Your task to perform on an android device: toggle wifi Image 0: 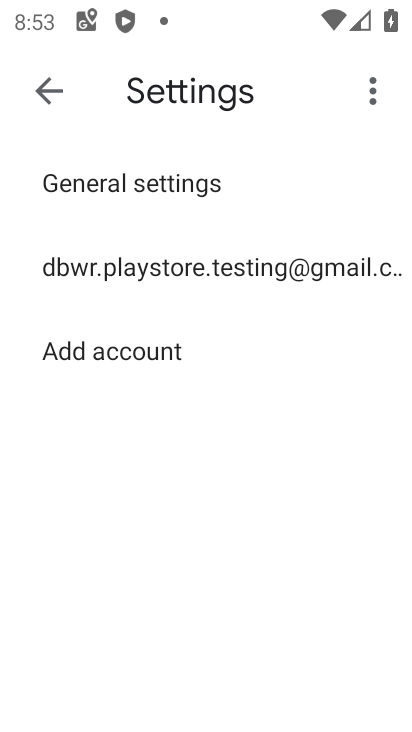
Step 0: press home button
Your task to perform on an android device: toggle wifi Image 1: 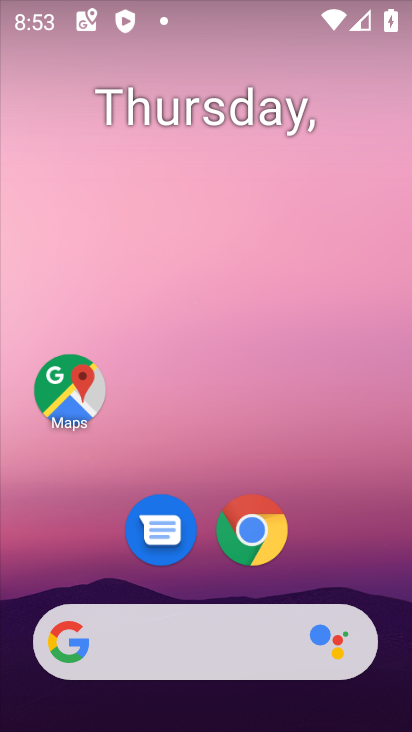
Step 1: drag from (318, 614) to (350, 273)
Your task to perform on an android device: toggle wifi Image 2: 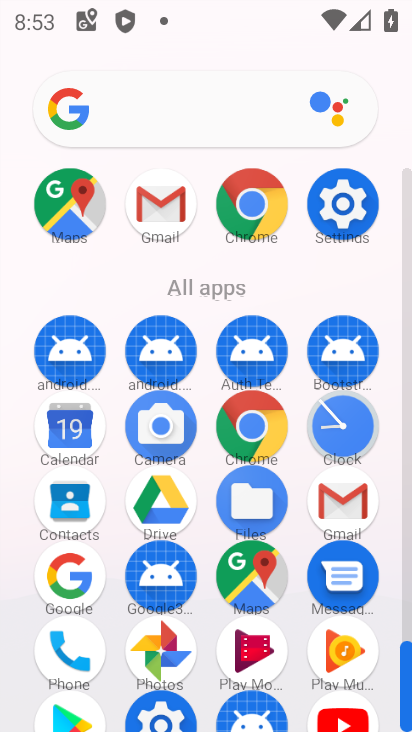
Step 2: click (354, 226)
Your task to perform on an android device: toggle wifi Image 3: 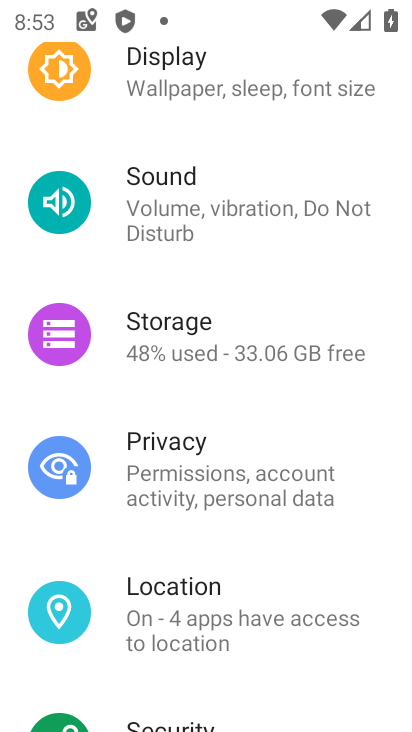
Step 3: drag from (291, 153) to (266, 395)
Your task to perform on an android device: toggle wifi Image 4: 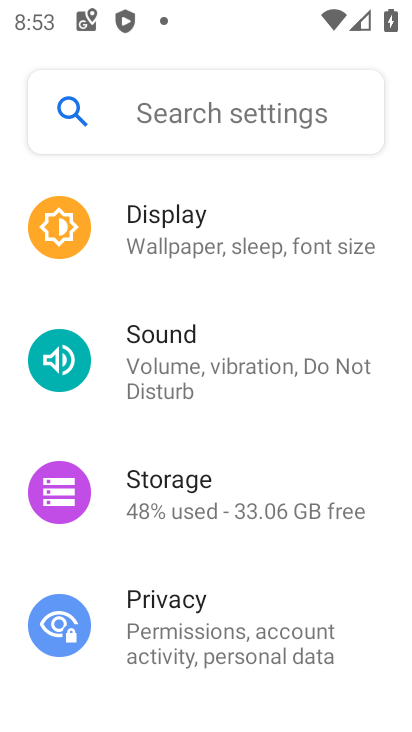
Step 4: drag from (277, 171) to (254, 401)
Your task to perform on an android device: toggle wifi Image 5: 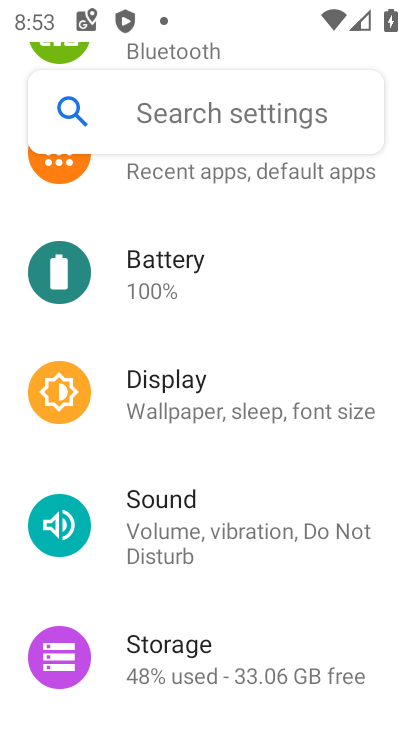
Step 5: drag from (267, 211) to (243, 366)
Your task to perform on an android device: toggle wifi Image 6: 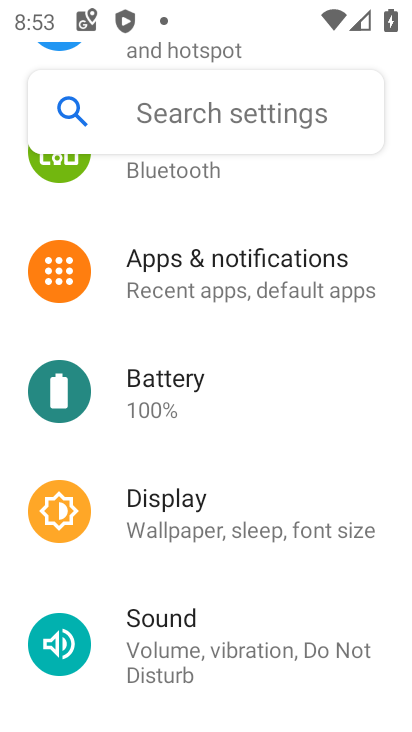
Step 6: drag from (255, 263) to (241, 317)
Your task to perform on an android device: toggle wifi Image 7: 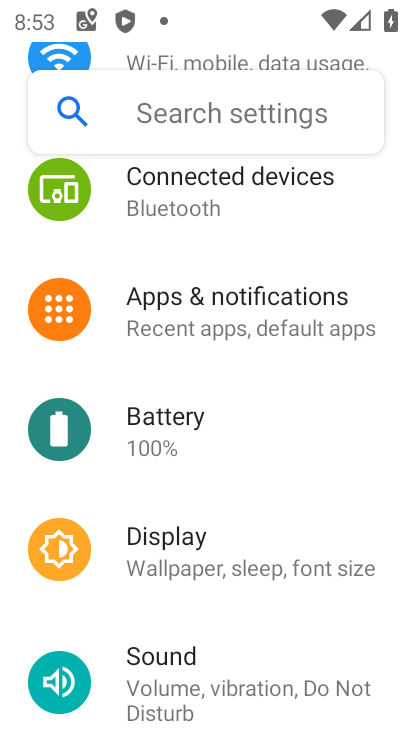
Step 7: drag from (258, 263) to (264, 421)
Your task to perform on an android device: toggle wifi Image 8: 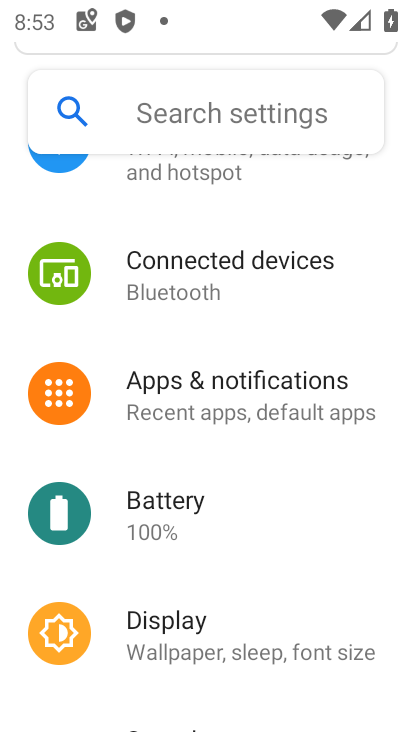
Step 8: drag from (292, 197) to (255, 476)
Your task to perform on an android device: toggle wifi Image 9: 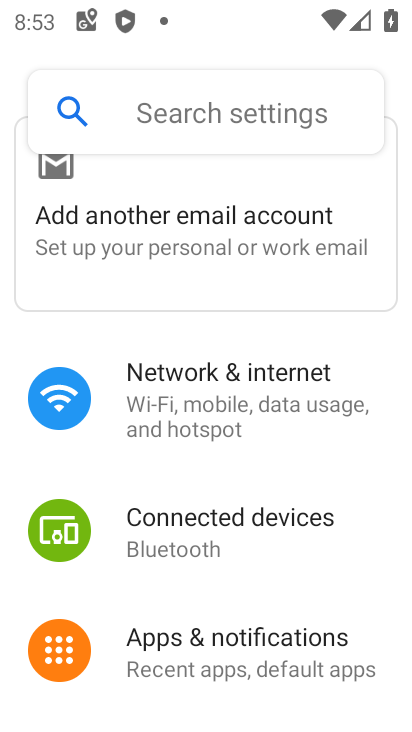
Step 9: click (252, 395)
Your task to perform on an android device: toggle wifi Image 10: 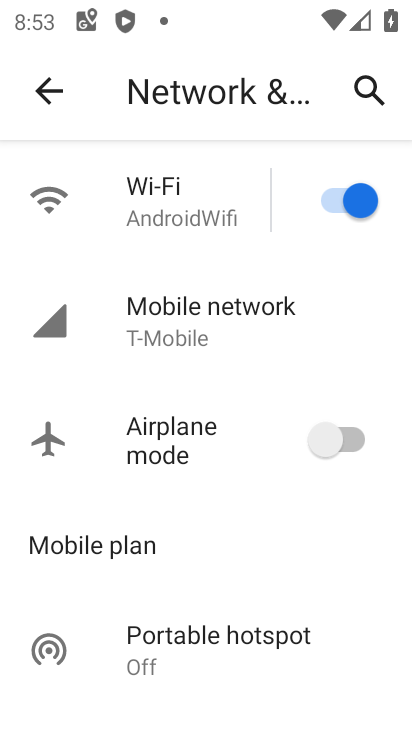
Step 10: click (340, 208)
Your task to perform on an android device: toggle wifi Image 11: 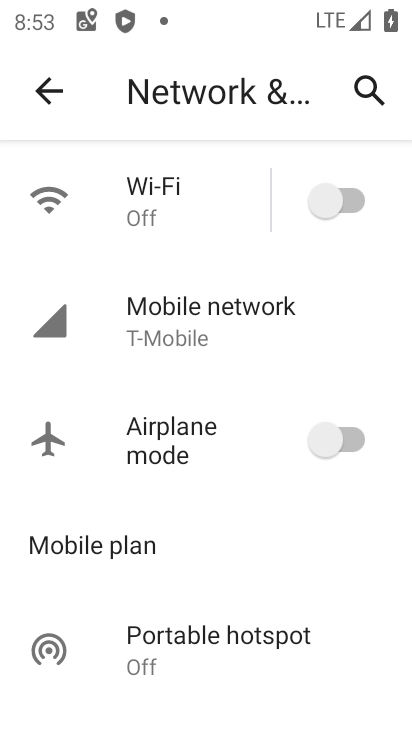
Step 11: task complete